Your task to perform on an android device: Open Maps and search for coffee Image 0: 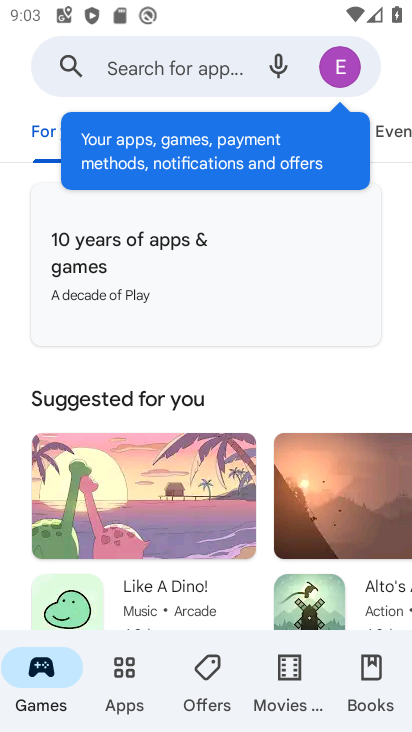
Step 0: press home button
Your task to perform on an android device: Open Maps and search for coffee Image 1: 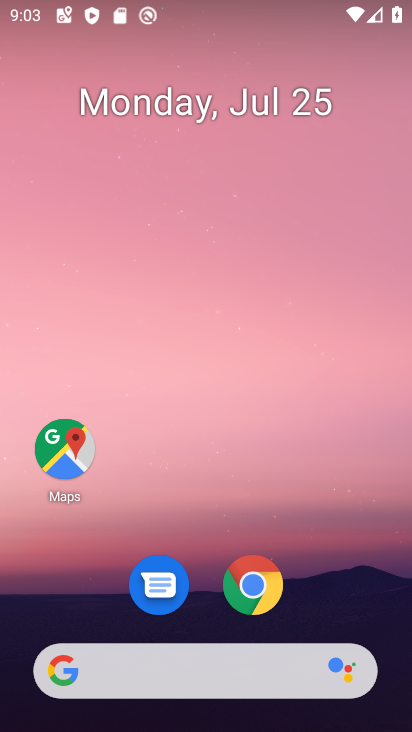
Step 1: click (57, 449)
Your task to perform on an android device: Open Maps and search for coffee Image 2: 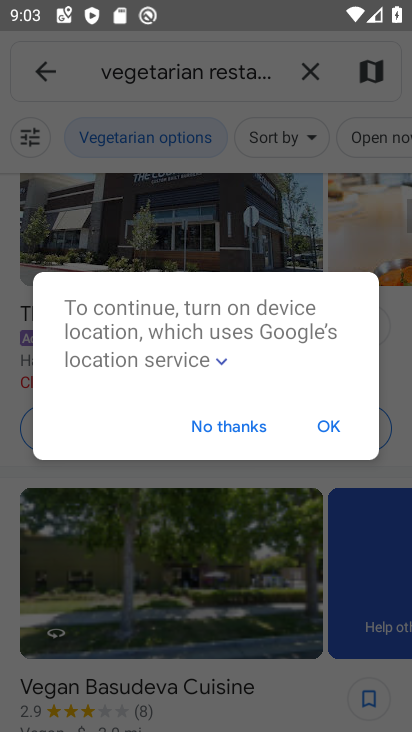
Step 2: click (313, 74)
Your task to perform on an android device: Open Maps and search for coffee Image 3: 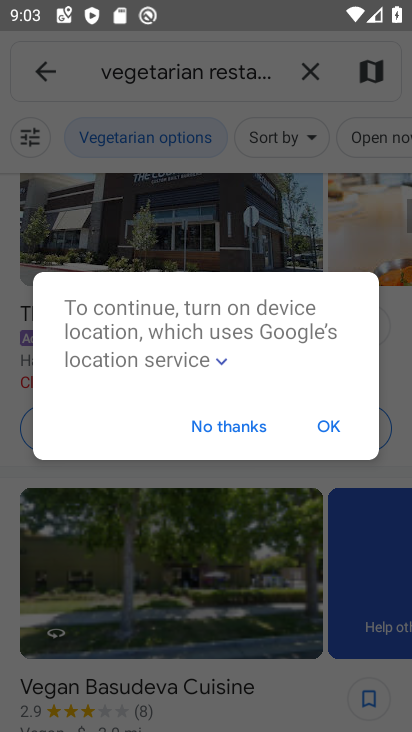
Step 3: click (327, 428)
Your task to perform on an android device: Open Maps and search for coffee Image 4: 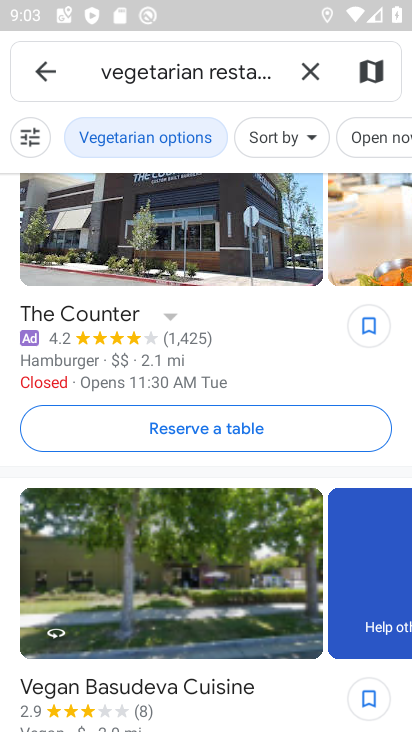
Step 4: click (310, 72)
Your task to perform on an android device: Open Maps and search for coffee Image 5: 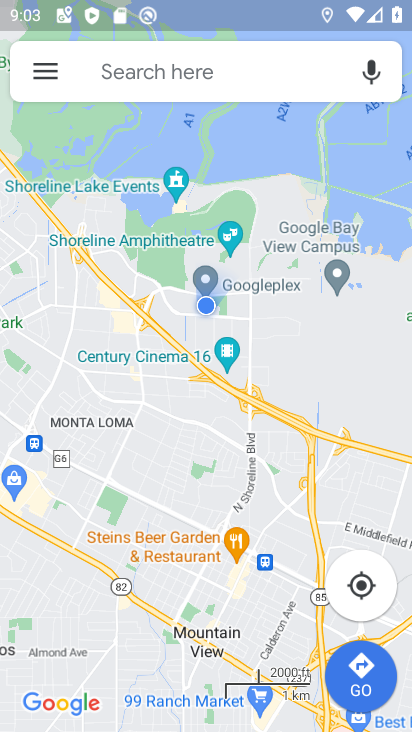
Step 5: click (221, 65)
Your task to perform on an android device: Open Maps and search for coffee Image 6: 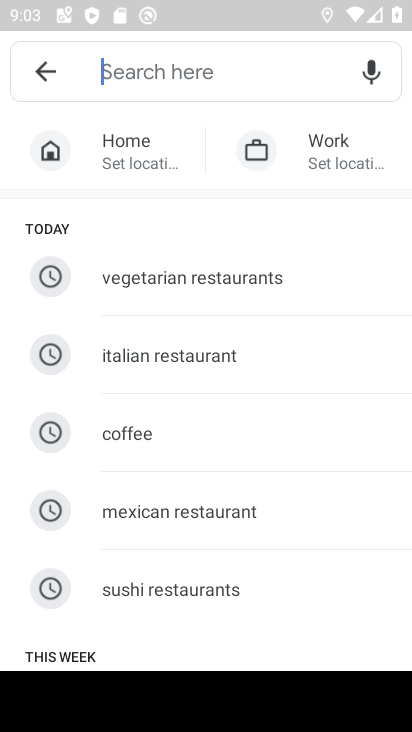
Step 6: click (142, 429)
Your task to perform on an android device: Open Maps and search for coffee Image 7: 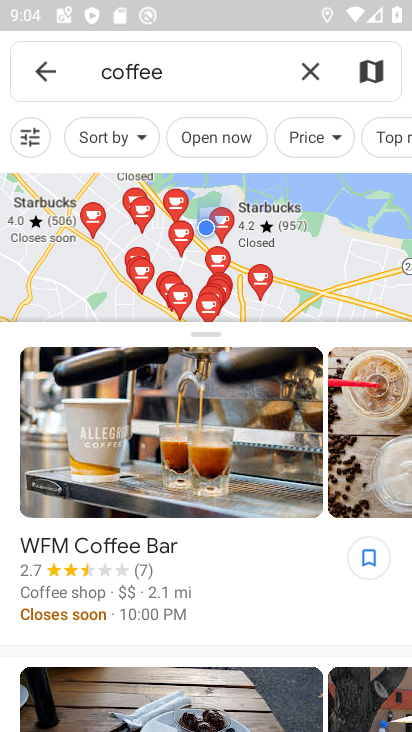
Step 7: task complete